Your task to perform on an android device: turn off airplane mode Image 0: 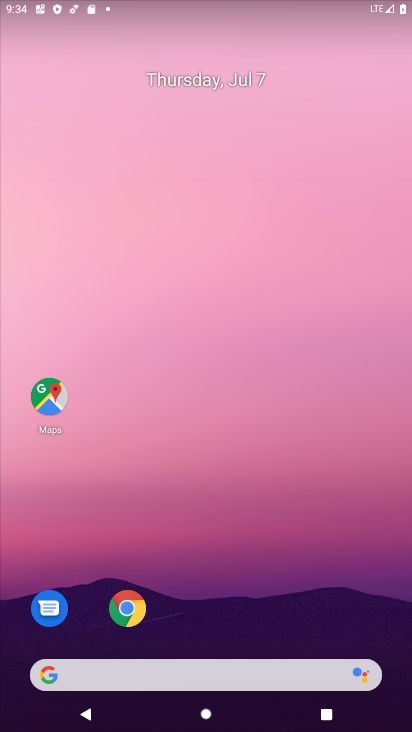
Step 0: drag from (221, 624) to (290, 65)
Your task to perform on an android device: turn off airplane mode Image 1: 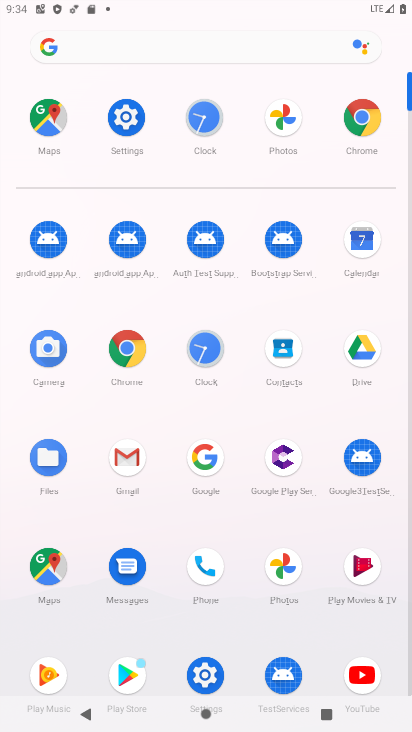
Step 1: click (119, 112)
Your task to perform on an android device: turn off airplane mode Image 2: 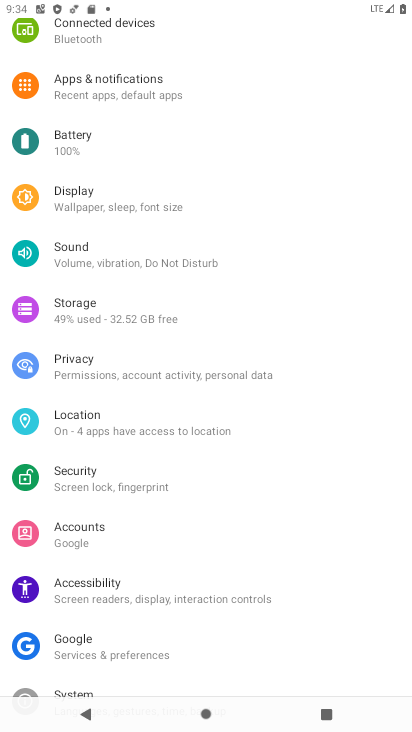
Step 2: drag from (138, 77) to (185, 620)
Your task to perform on an android device: turn off airplane mode Image 3: 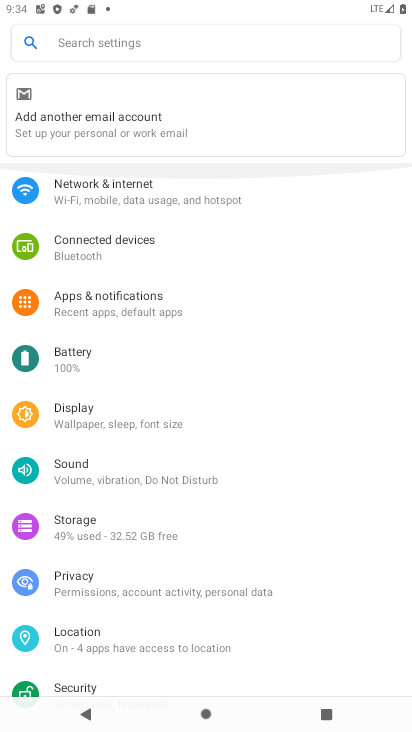
Step 3: click (136, 197)
Your task to perform on an android device: turn off airplane mode Image 4: 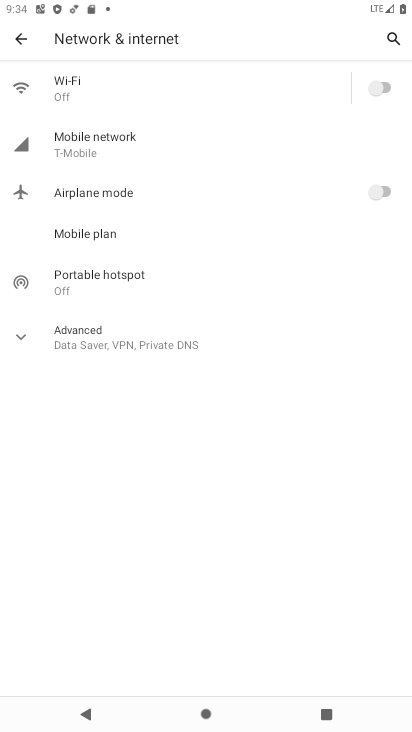
Step 4: task complete